Your task to perform on an android device: Go to internet settings Image 0: 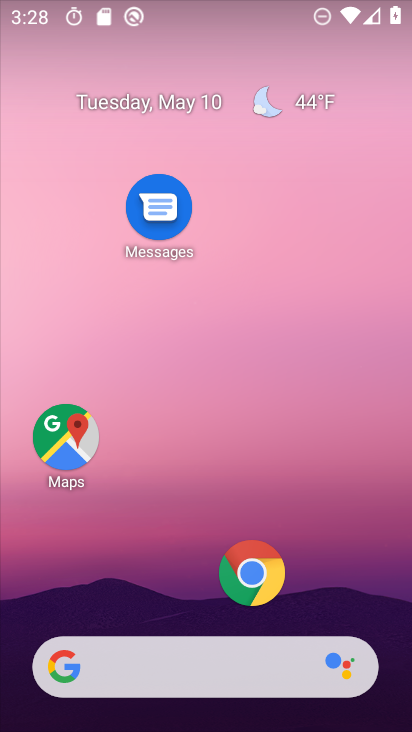
Step 0: drag from (193, 617) to (232, 231)
Your task to perform on an android device: Go to internet settings Image 1: 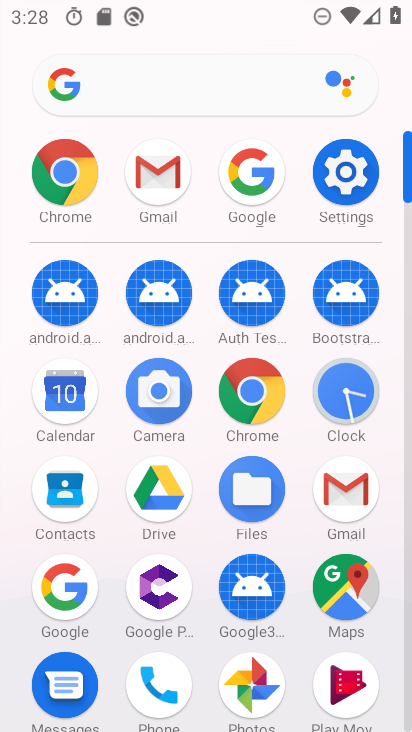
Step 1: click (356, 181)
Your task to perform on an android device: Go to internet settings Image 2: 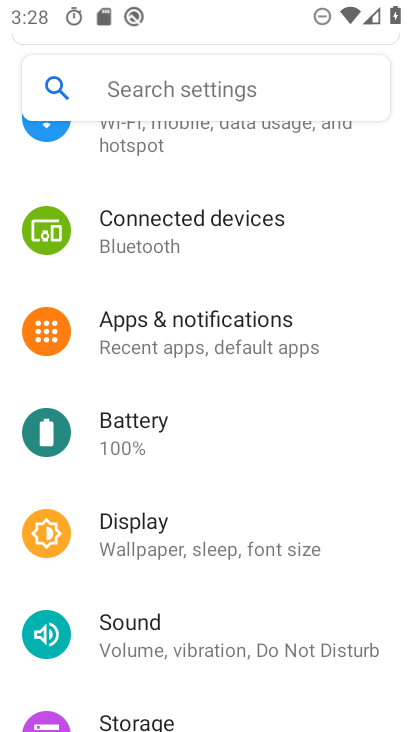
Step 2: drag from (258, 194) to (258, 447)
Your task to perform on an android device: Go to internet settings Image 3: 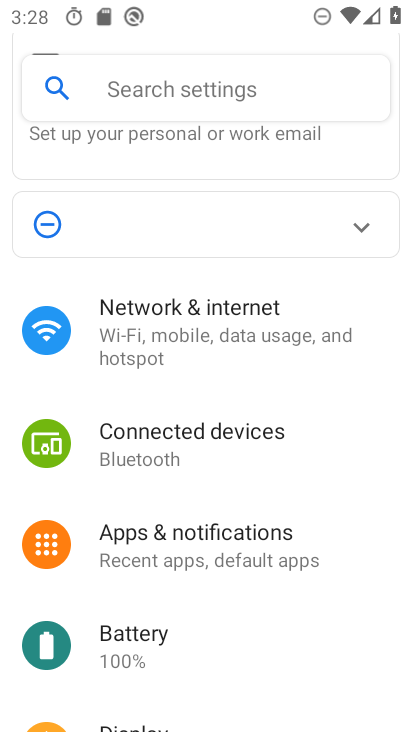
Step 3: click (225, 326)
Your task to perform on an android device: Go to internet settings Image 4: 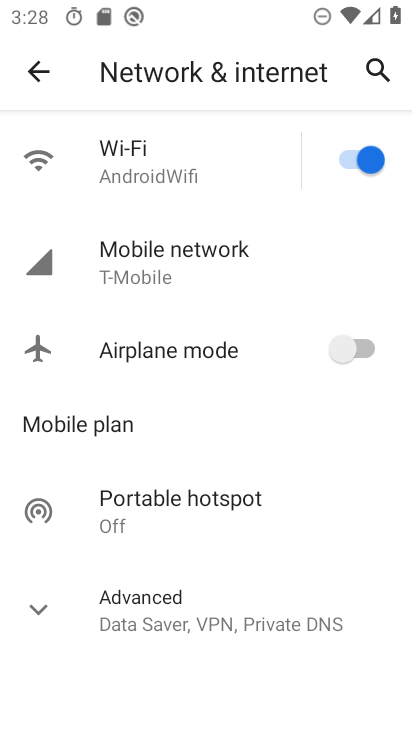
Step 4: task complete